Your task to perform on an android device: Search for Mexican restaurants on Maps Image 0: 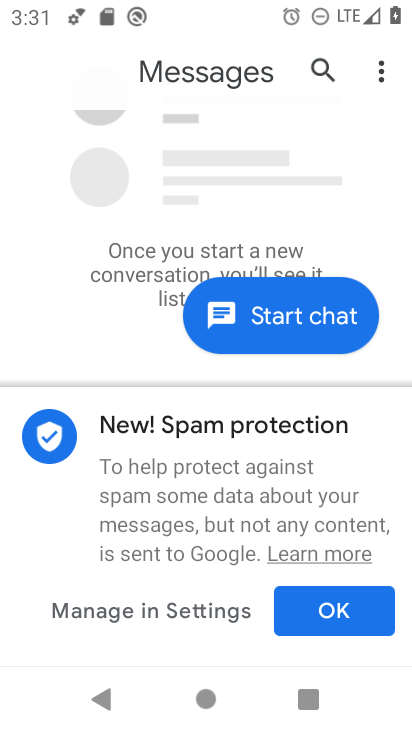
Step 0: press home button
Your task to perform on an android device: Search for Mexican restaurants on Maps Image 1: 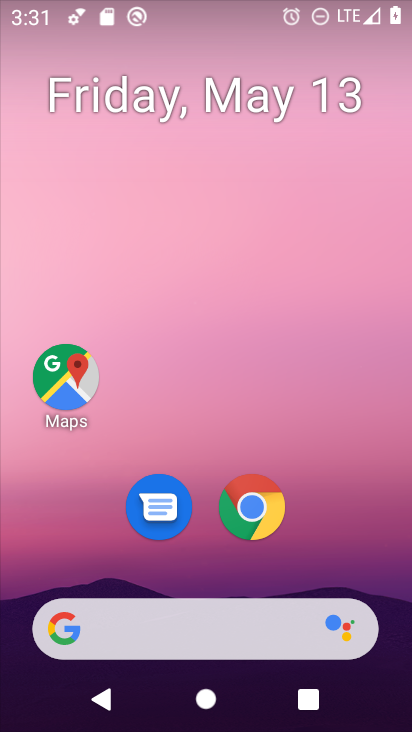
Step 1: click (56, 373)
Your task to perform on an android device: Search for Mexican restaurants on Maps Image 2: 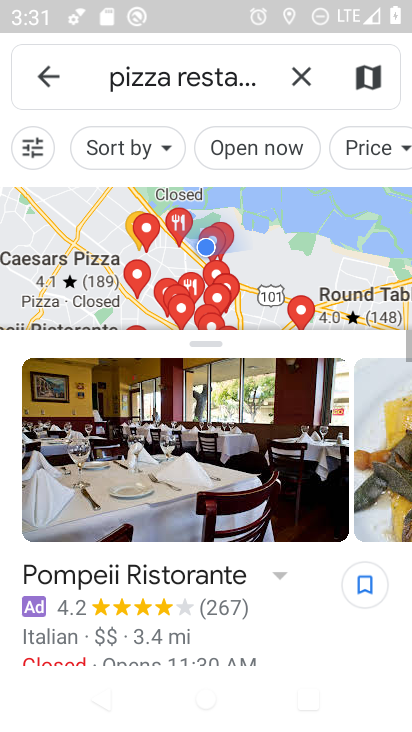
Step 2: click (239, 81)
Your task to perform on an android device: Search for Mexican restaurants on Maps Image 3: 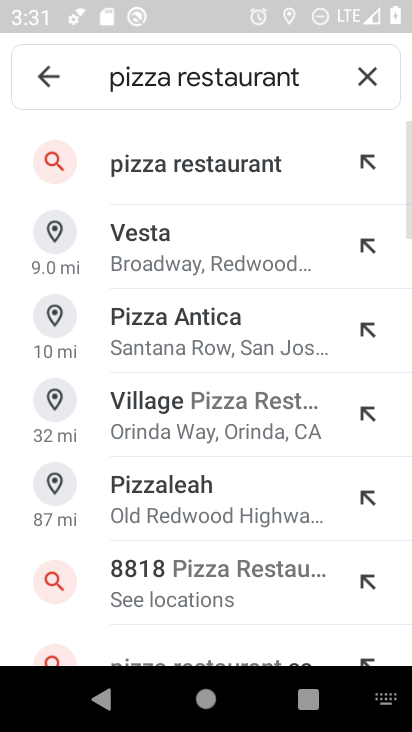
Step 3: click (362, 66)
Your task to perform on an android device: Search for Mexican restaurants on Maps Image 4: 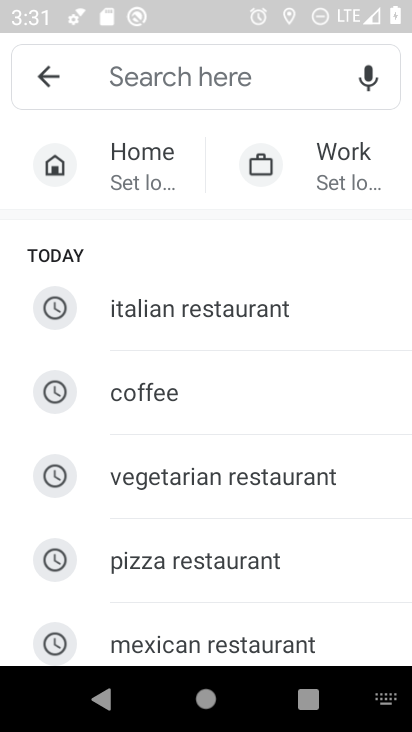
Step 4: click (302, 623)
Your task to perform on an android device: Search for Mexican restaurants on Maps Image 5: 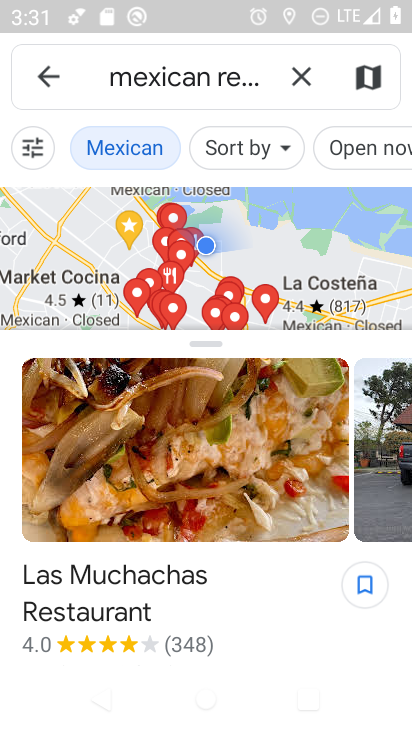
Step 5: task complete